Your task to perform on an android device: open sync settings in chrome Image 0: 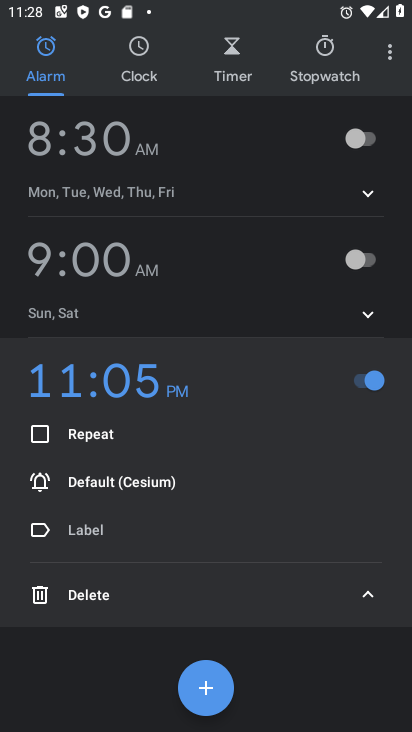
Step 0: press home button
Your task to perform on an android device: open sync settings in chrome Image 1: 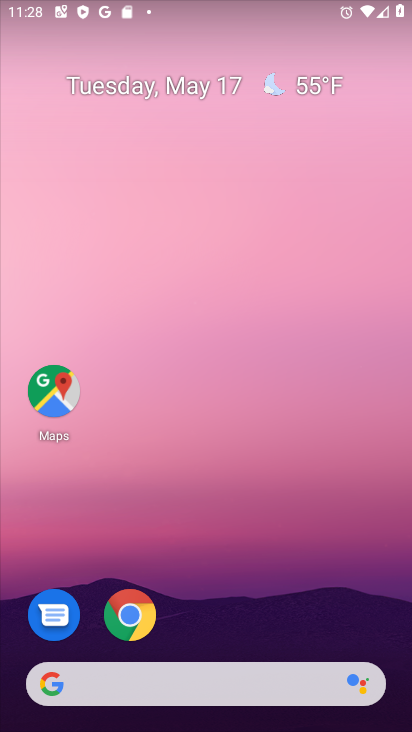
Step 1: click (138, 613)
Your task to perform on an android device: open sync settings in chrome Image 2: 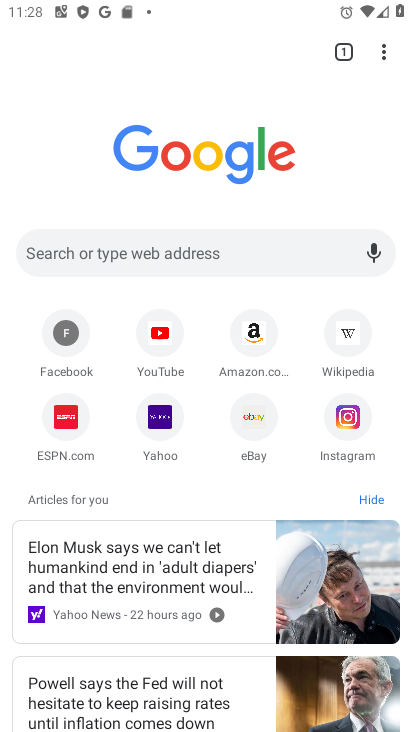
Step 2: drag from (391, 56) to (222, 435)
Your task to perform on an android device: open sync settings in chrome Image 3: 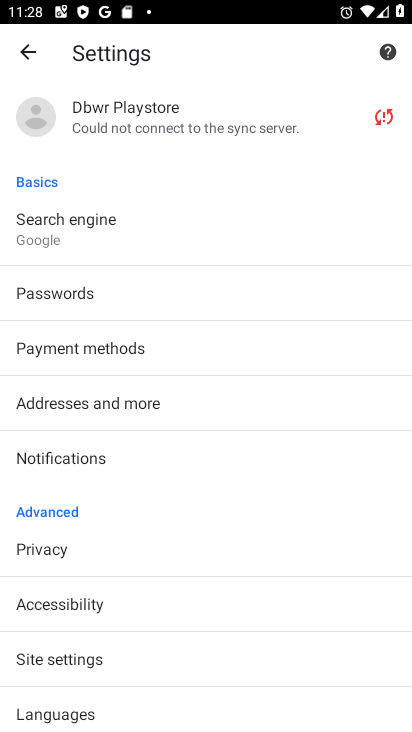
Step 3: click (134, 120)
Your task to perform on an android device: open sync settings in chrome Image 4: 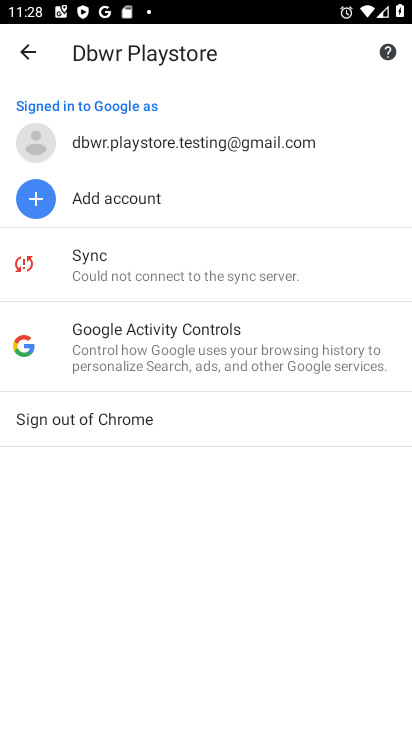
Step 4: click (163, 268)
Your task to perform on an android device: open sync settings in chrome Image 5: 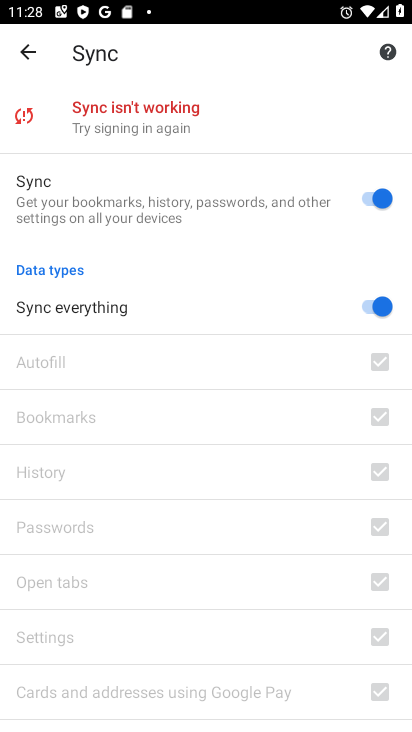
Step 5: task complete